Your task to perform on an android device: toggle priority inbox in the gmail app Image 0: 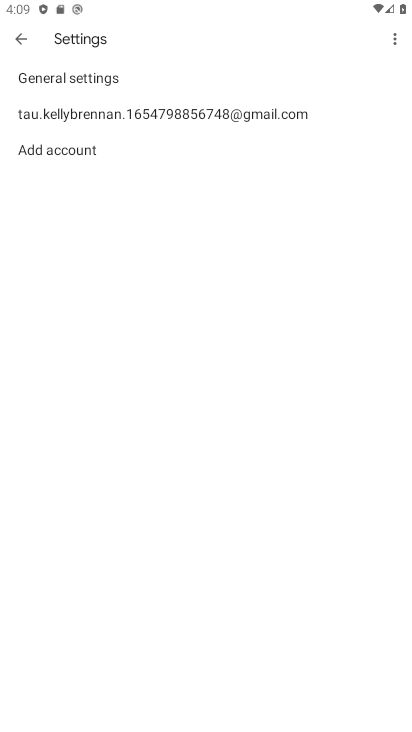
Step 0: press home button
Your task to perform on an android device: toggle priority inbox in the gmail app Image 1: 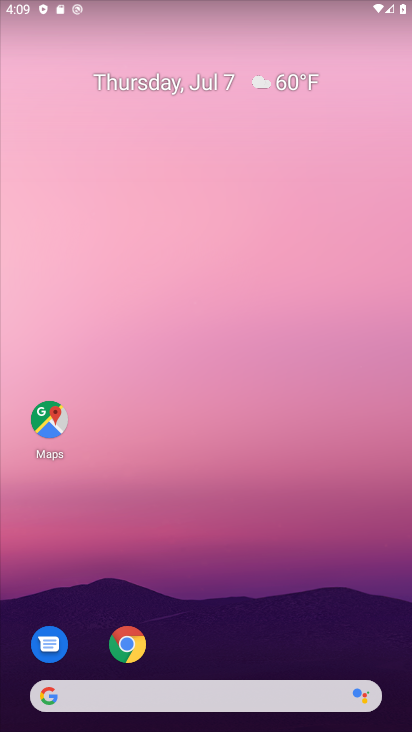
Step 1: drag from (311, 612) to (247, 27)
Your task to perform on an android device: toggle priority inbox in the gmail app Image 2: 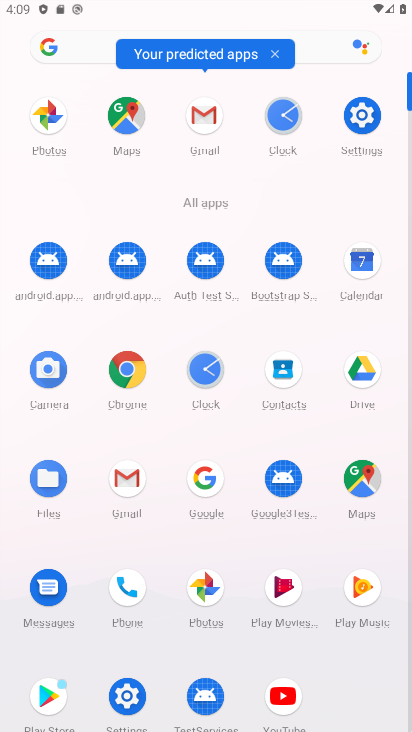
Step 2: click (205, 131)
Your task to perform on an android device: toggle priority inbox in the gmail app Image 3: 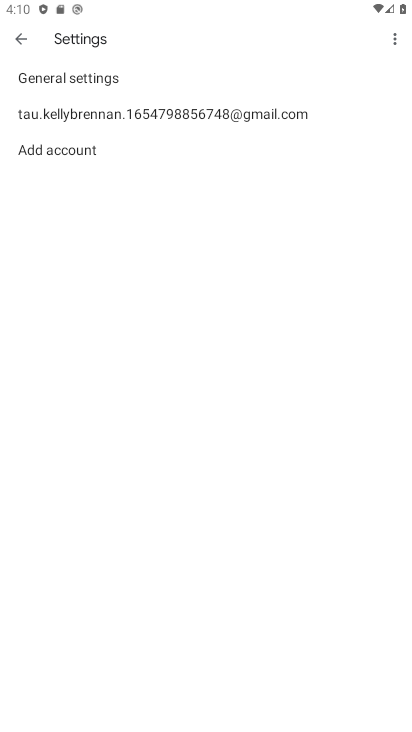
Step 3: click (24, 31)
Your task to perform on an android device: toggle priority inbox in the gmail app Image 4: 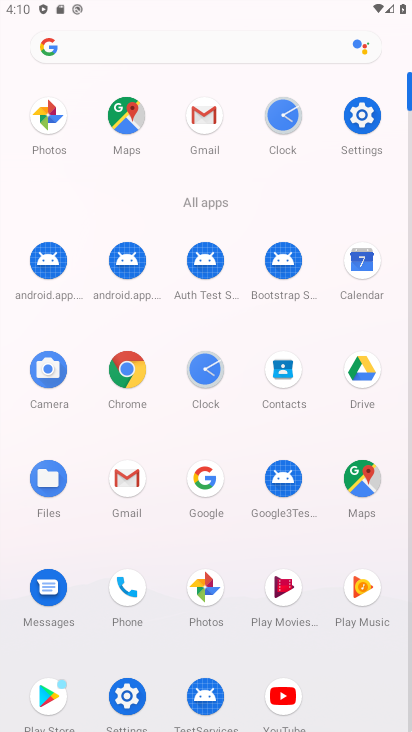
Step 4: click (209, 125)
Your task to perform on an android device: toggle priority inbox in the gmail app Image 5: 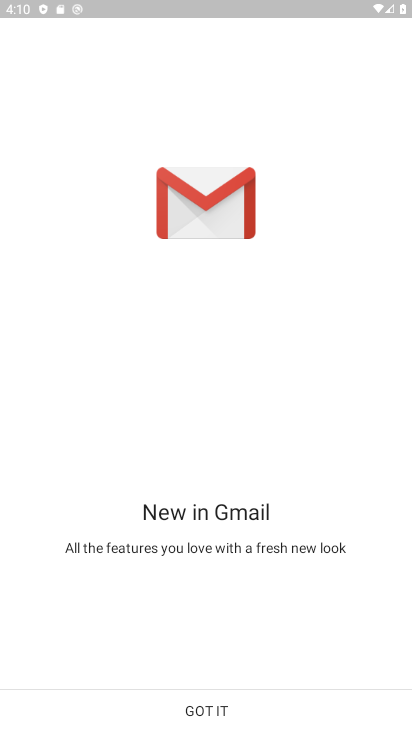
Step 5: click (209, 698)
Your task to perform on an android device: toggle priority inbox in the gmail app Image 6: 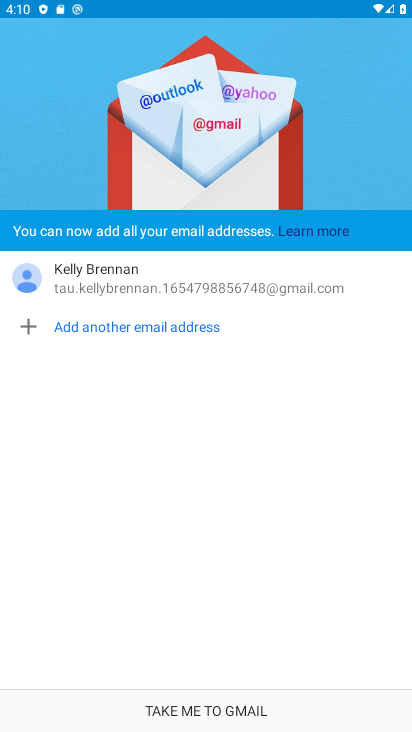
Step 6: click (224, 714)
Your task to perform on an android device: toggle priority inbox in the gmail app Image 7: 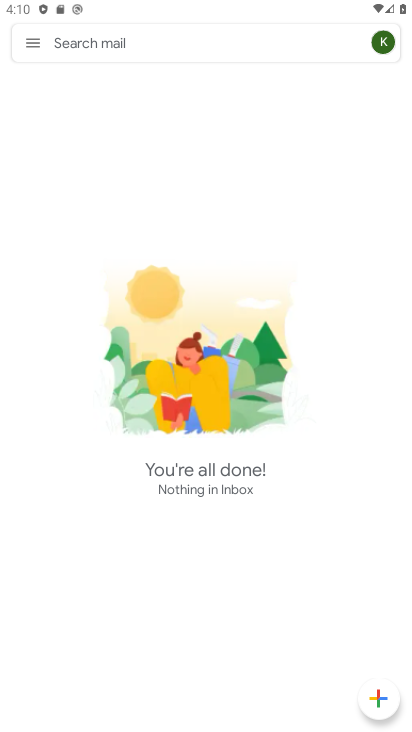
Step 7: click (31, 40)
Your task to perform on an android device: toggle priority inbox in the gmail app Image 8: 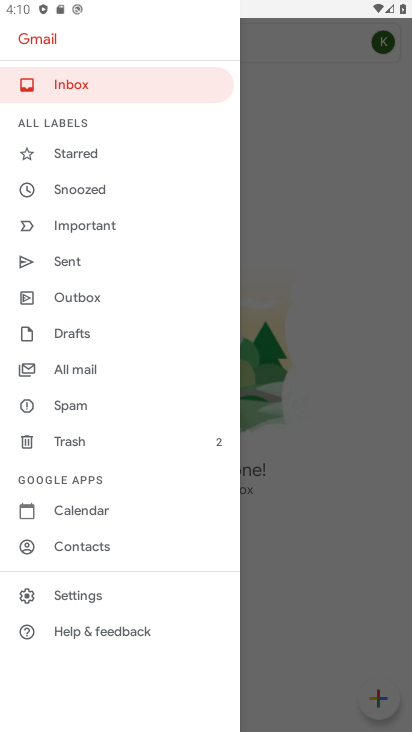
Step 8: click (127, 596)
Your task to perform on an android device: toggle priority inbox in the gmail app Image 9: 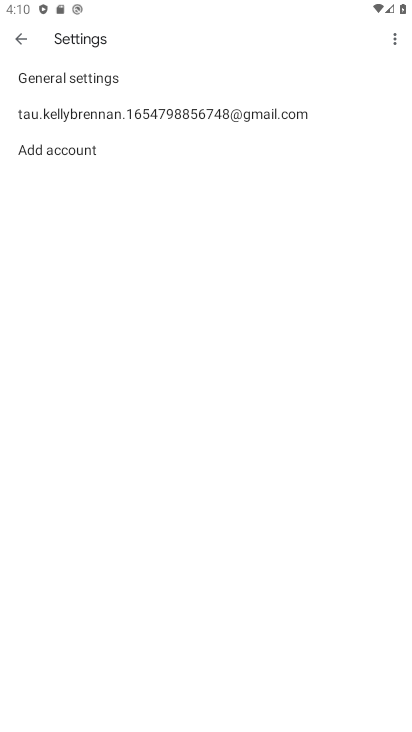
Step 9: click (252, 112)
Your task to perform on an android device: toggle priority inbox in the gmail app Image 10: 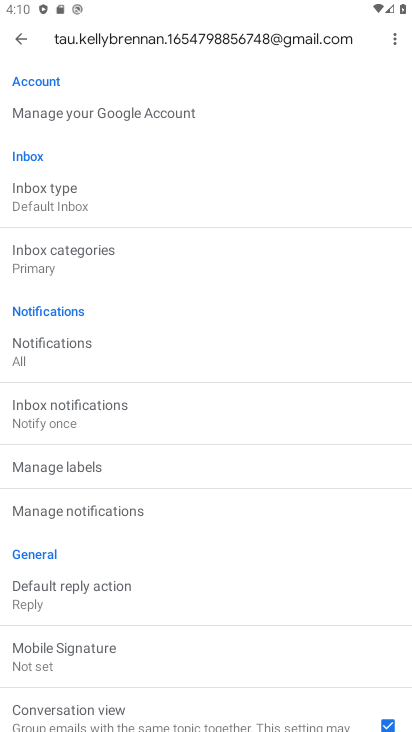
Step 10: click (219, 200)
Your task to perform on an android device: toggle priority inbox in the gmail app Image 11: 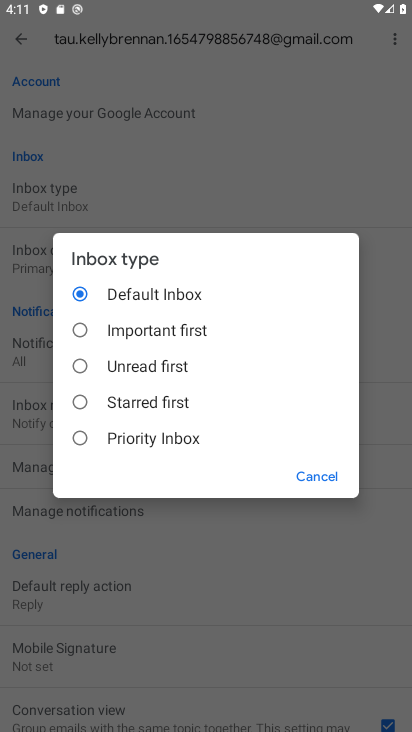
Step 11: click (142, 444)
Your task to perform on an android device: toggle priority inbox in the gmail app Image 12: 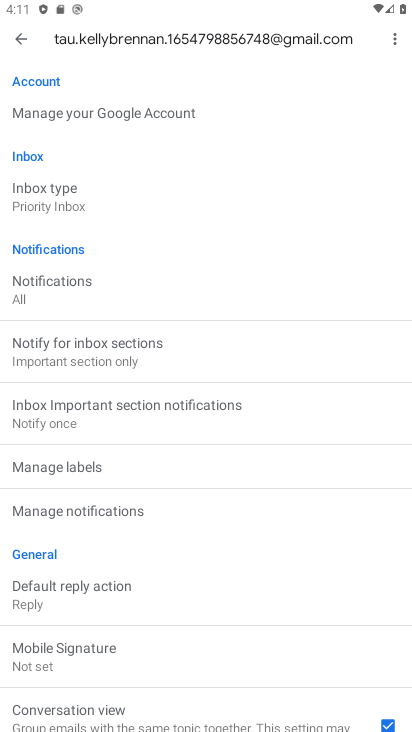
Step 12: task complete